Your task to perform on an android device: Open the web browser Image 0: 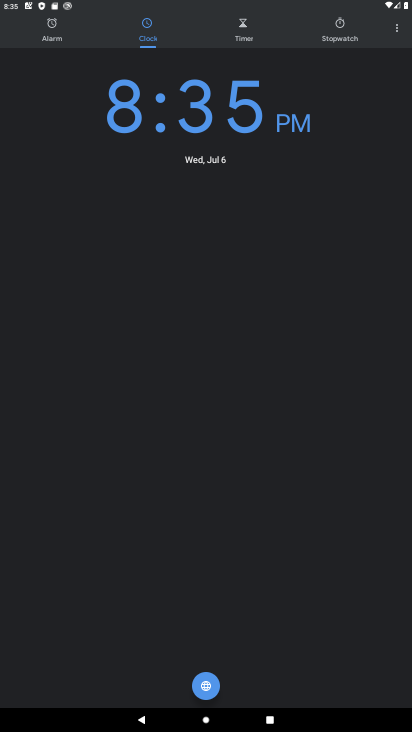
Step 0: press home button
Your task to perform on an android device: Open the web browser Image 1: 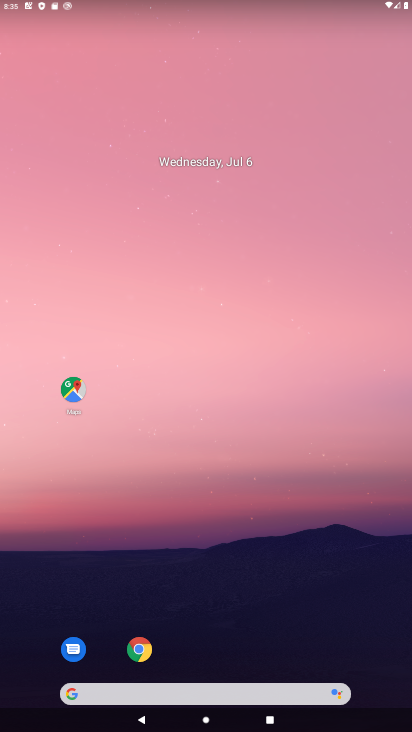
Step 1: click (150, 648)
Your task to perform on an android device: Open the web browser Image 2: 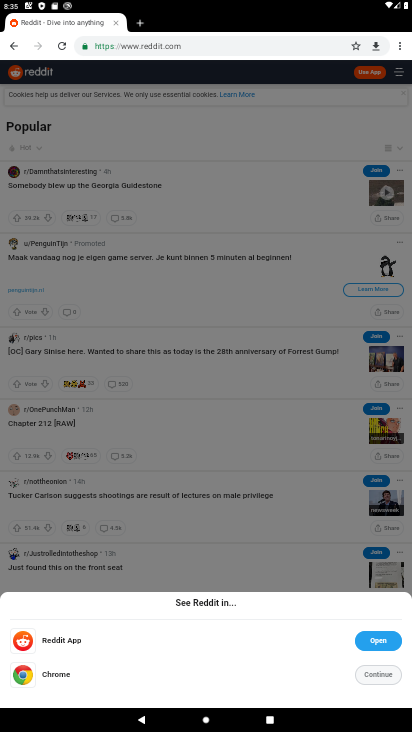
Step 2: click (385, 676)
Your task to perform on an android device: Open the web browser Image 3: 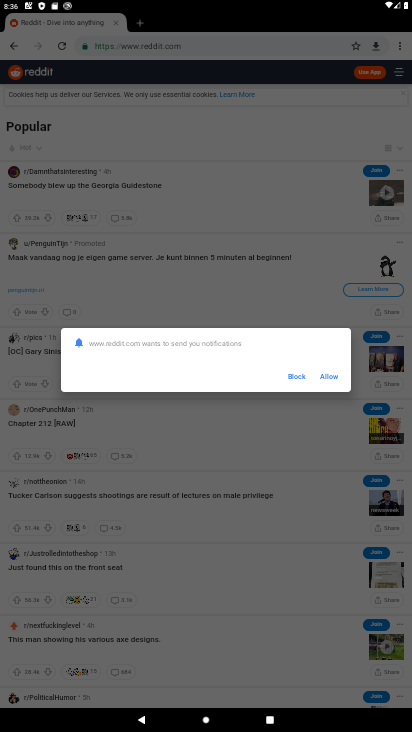
Step 3: click (330, 379)
Your task to perform on an android device: Open the web browser Image 4: 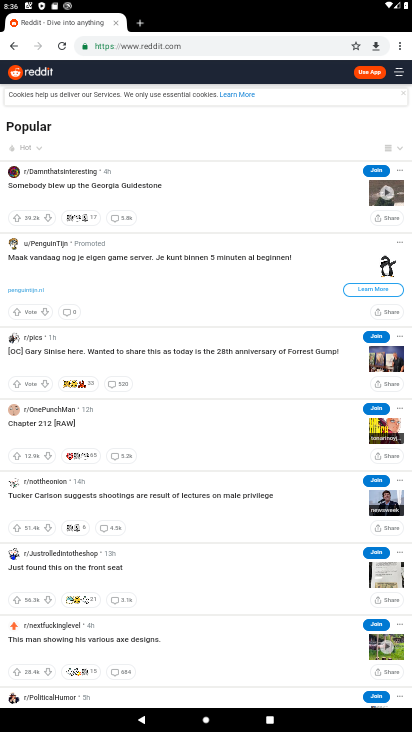
Step 4: task complete